Your task to perform on an android device: Go to wifi settings Image 0: 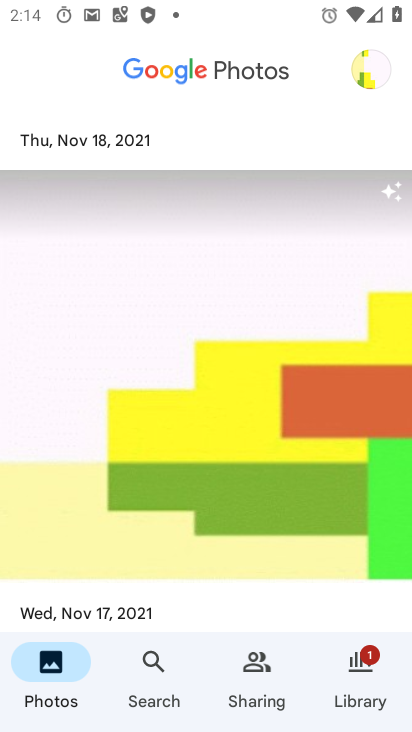
Step 0: press home button
Your task to perform on an android device: Go to wifi settings Image 1: 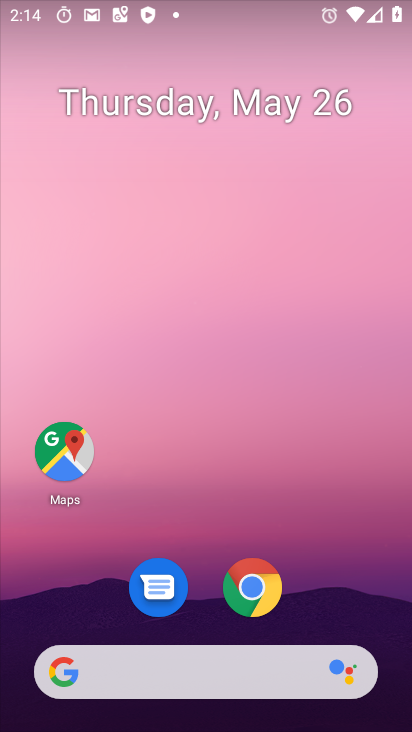
Step 1: drag from (223, 703) to (190, 33)
Your task to perform on an android device: Go to wifi settings Image 2: 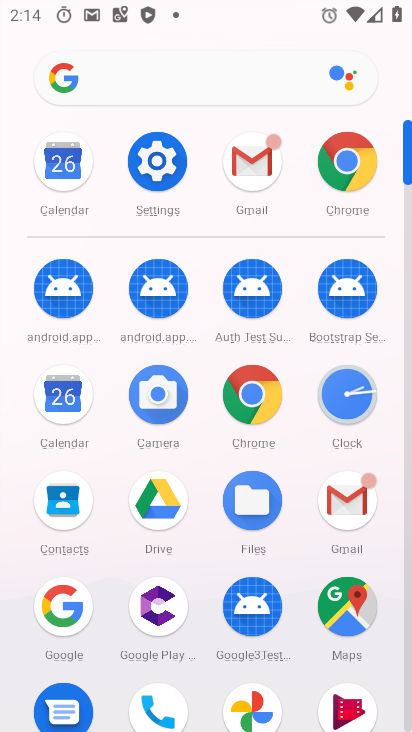
Step 2: click (161, 164)
Your task to perform on an android device: Go to wifi settings Image 3: 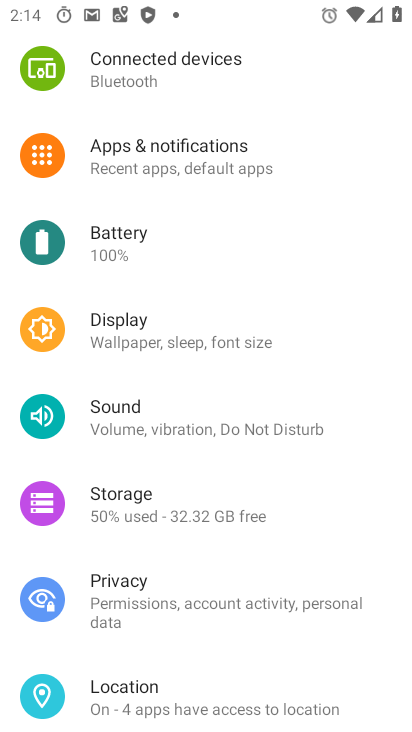
Step 3: drag from (156, 138) to (168, 379)
Your task to perform on an android device: Go to wifi settings Image 4: 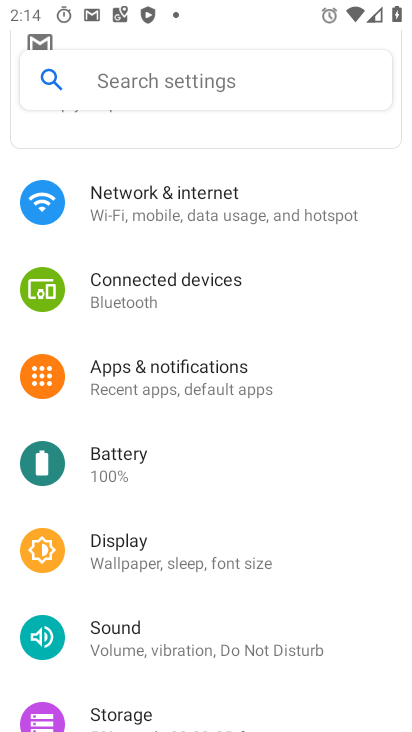
Step 4: click (154, 212)
Your task to perform on an android device: Go to wifi settings Image 5: 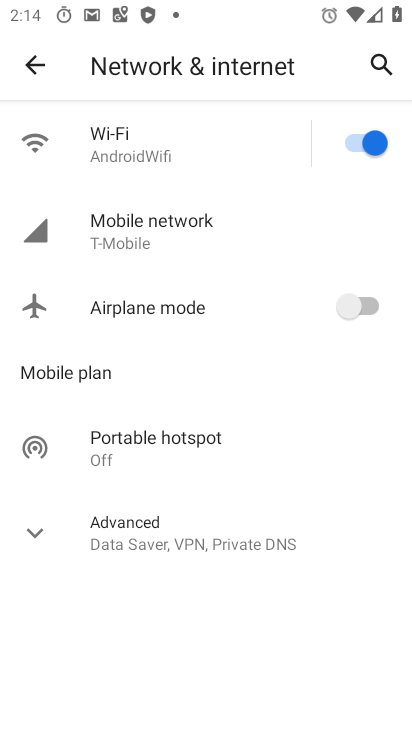
Step 5: click (127, 150)
Your task to perform on an android device: Go to wifi settings Image 6: 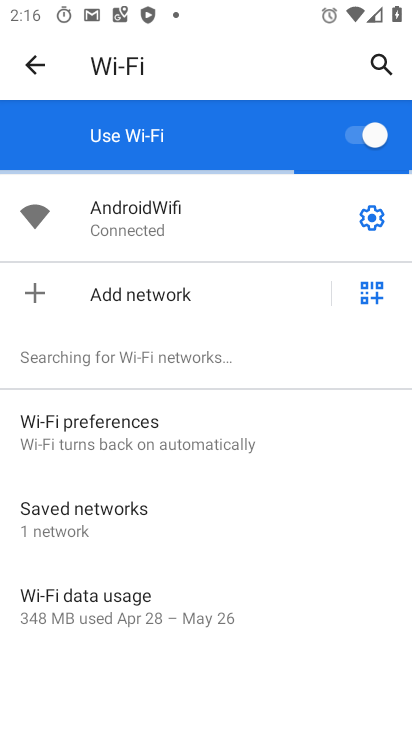
Step 6: task complete